Your task to perform on an android device: Open CNN.com Image 0: 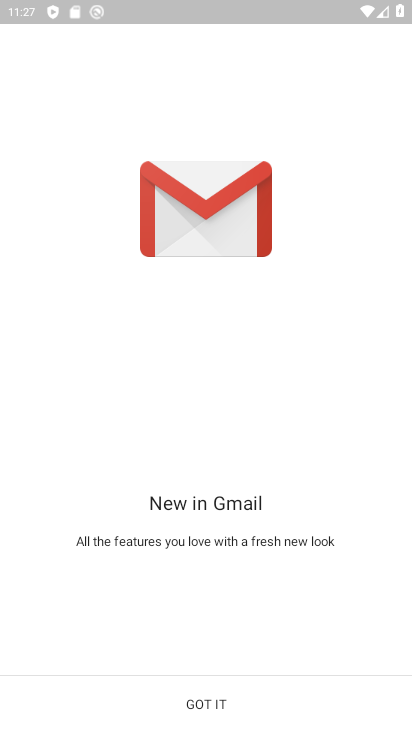
Step 0: press home button
Your task to perform on an android device: Open CNN.com Image 1: 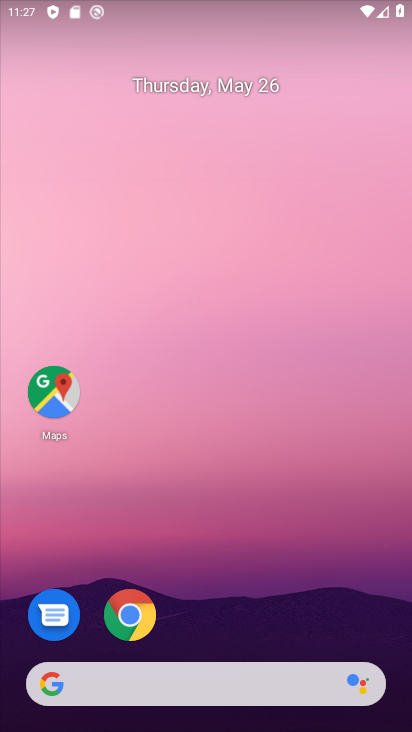
Step 1: click (146, 619)
Your task to perform on an android device: Open CNN.com Image 2: 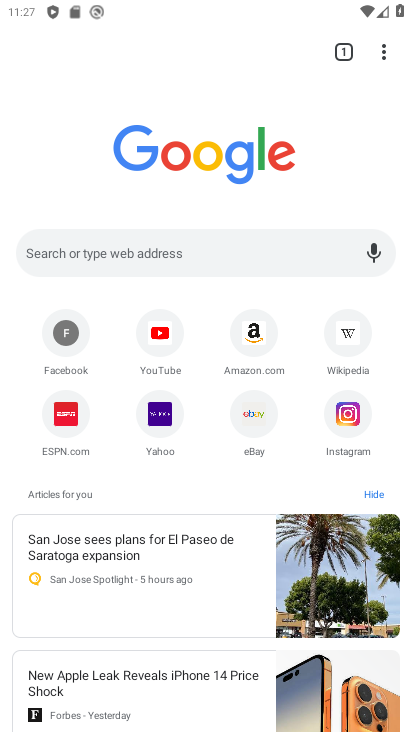
Step 2: click (184, 247)
Your task to perform on an android device: Open CNN.com Image 3: 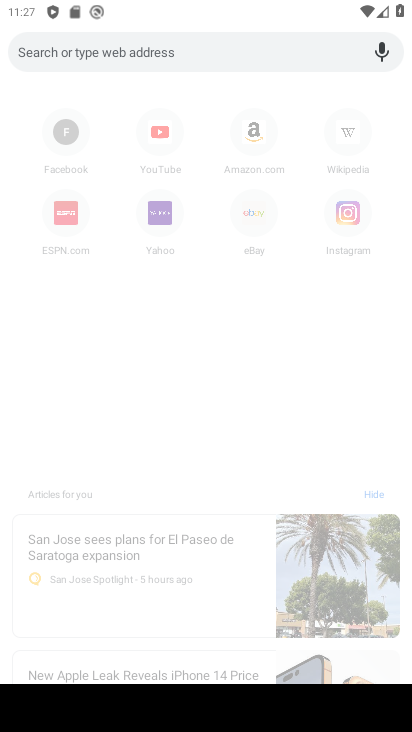
Step 3: type "cnn.com"
Your task to perform on an android device: Open CNN.com Image 4: 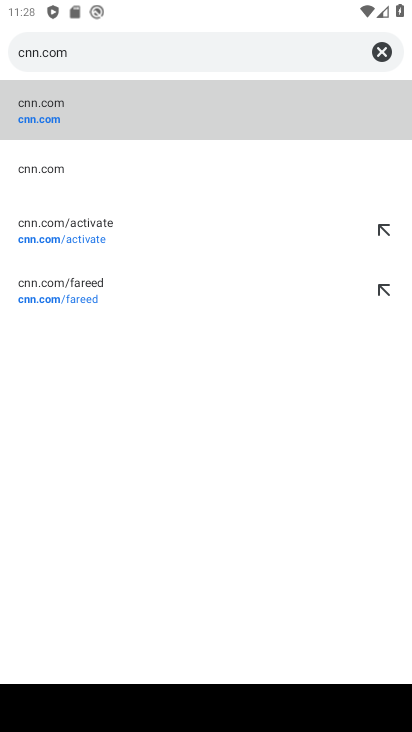
Step 4: click (43, 114)
Your task to perform on an android device: Open CNN.com Image 5: 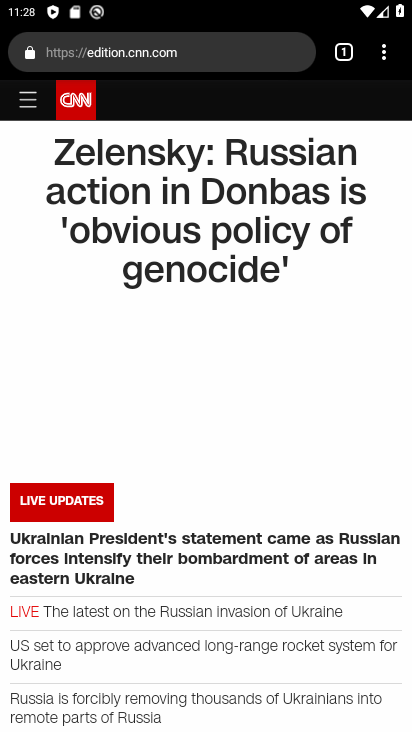
Step 5: task complete